Your task to perform on an android device: turn smart compose on in the gmail app Image 0: 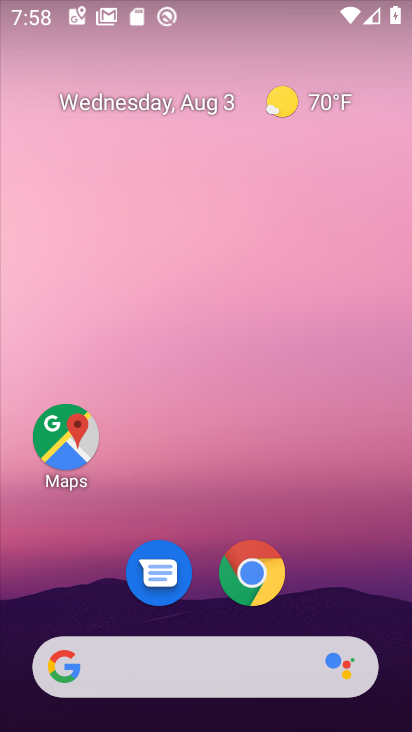
Step 0: drag from (314, 607) to (302, 26)
Your task to perform on an android device: turn smart compose on in the gmail app Image 1: 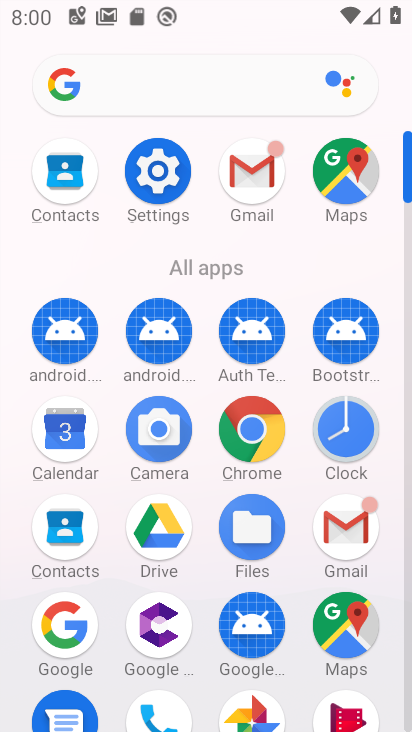
Step 1: click (245, 182)
Your task to perform on an android device: turn smart compose on in the gmail app Image 2: 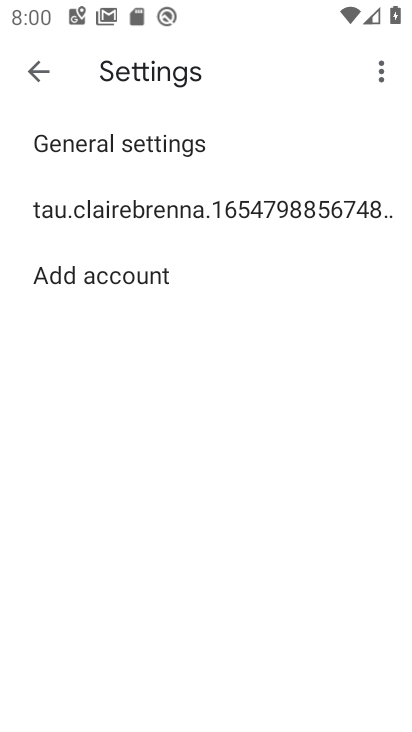
Step 2: click (35, 73)
Your task to perform on an android device: turn smart compose on in the gmail app Image 3: 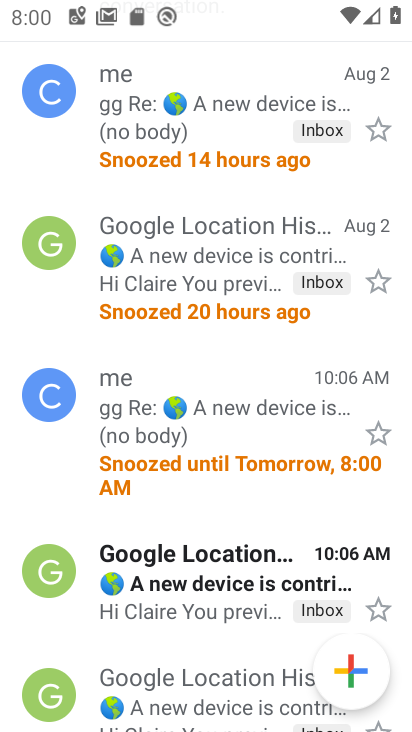
Step 3: drag from (199, 204) to (209, 631)
Your task to perform on an android device: turn smart compose on in the gmail app Image 4: 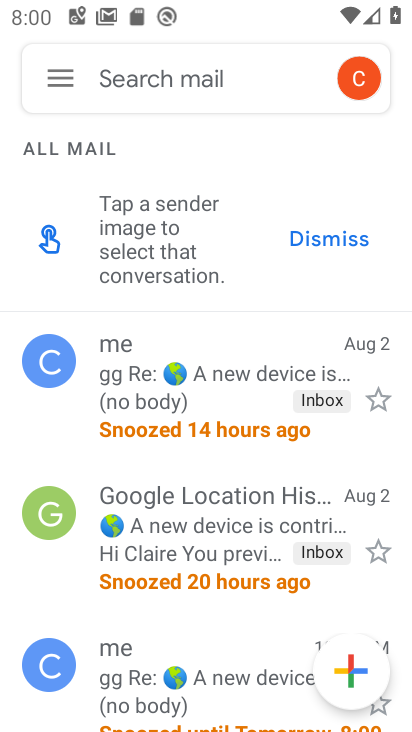
Step 4: click (58, 69)
Your task to perform on an android device: turn smart compose on in the gmail app Image 5: 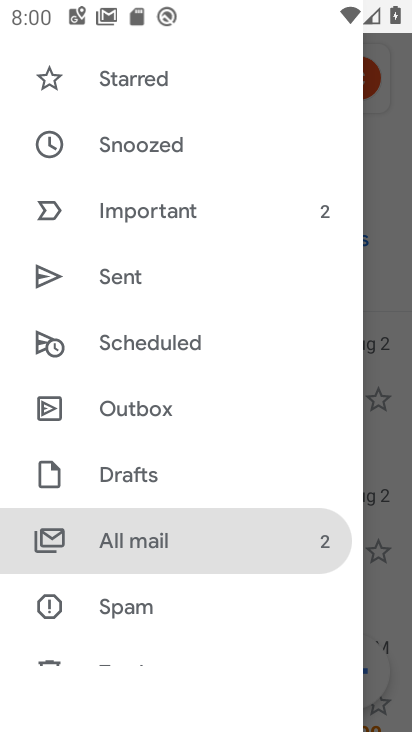
Step 5: drag from (188, 606) to (179, 183)
Your task to perform on an android device: turn smart compose on in the gmail app Image 6: 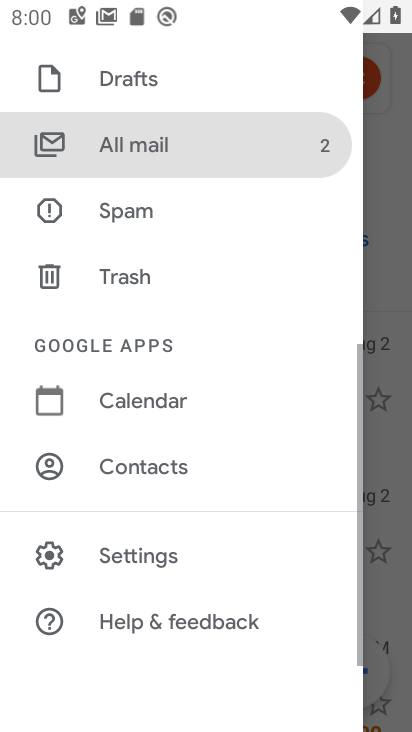
Step 6: click (144, 560)
Your task to perform on an android device: turn smart compose on in the gmail app Image 7: 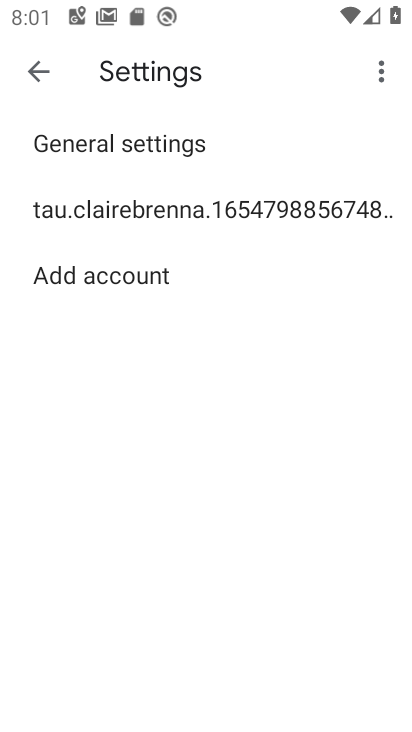
Step 7: click (167, 211)
Your task to perform on an android device: turn smart compose on in the gmail app Image 8: 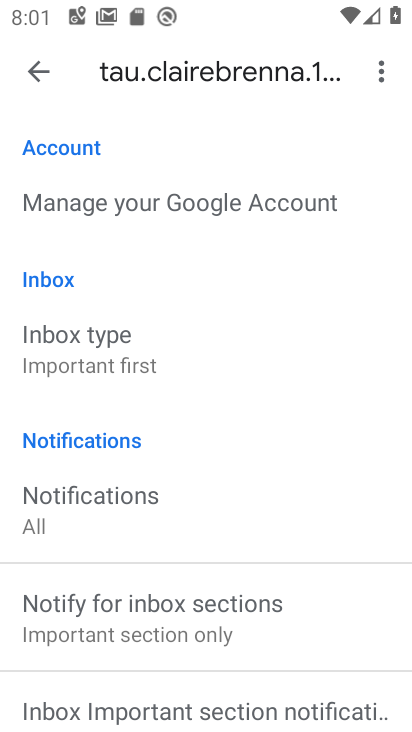
Step 8: task complete